Your task to perform on an android device: Open battery settings Image 0: 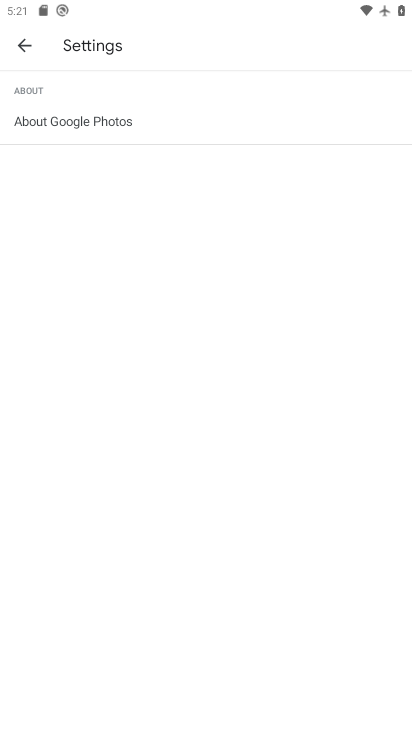
Step 0: press home button
Your task to perform on an android device: Open battery settings Image 1: 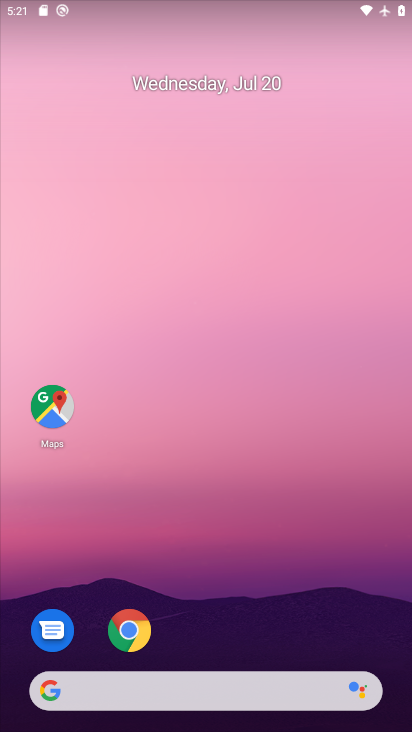
Step 1: drag from (274, 585) to (215, 0)
Your task to perform on an android device: Open battery settings Image 2: 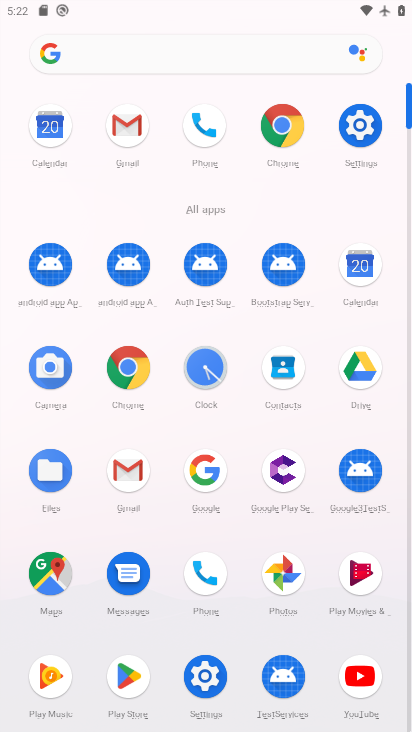
Step 2: click (362, 119)
Your task to perform on an android device: Open battery settings Image 3: 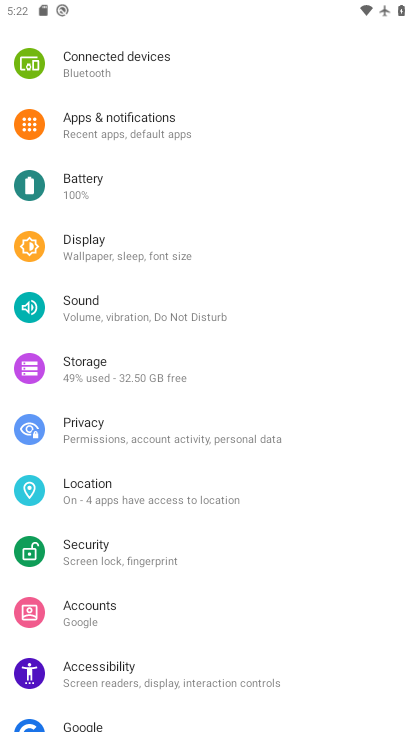
Step 3: click (96, 182)
Your task to perform on an android device: Open battery settings Image 4: 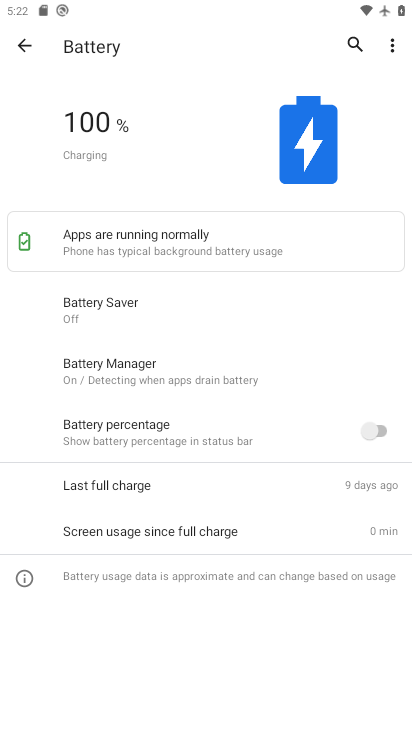
Step 4: task complete